Your task to perform on an android device: turn off location history Image 0: 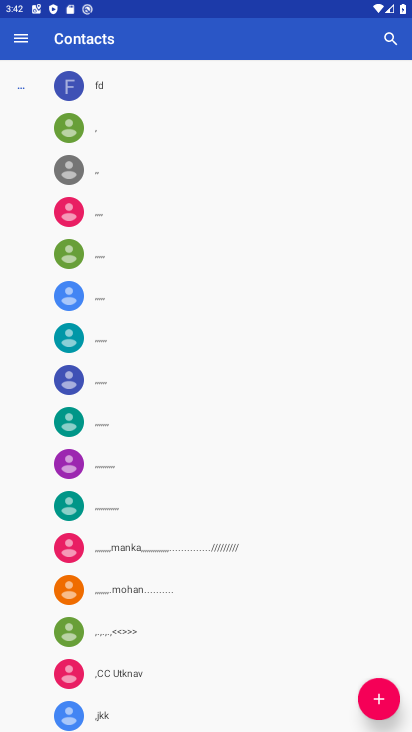
Step 0: press home button
Your task to perform on an android device: turn off location history Image 1: 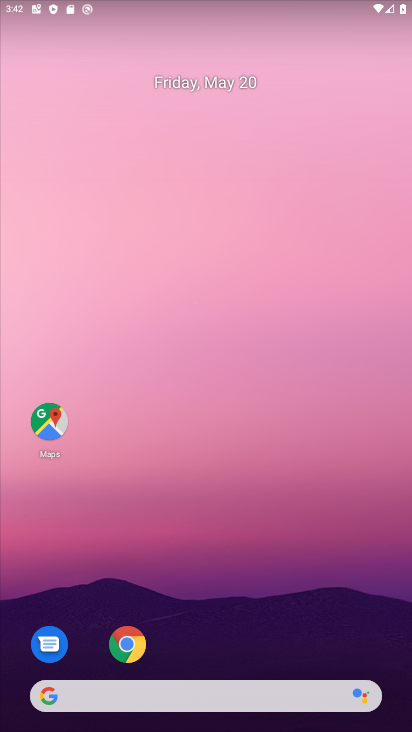
Step 1: drag from (261, 610) to (308, 196)
Your task to perform on an android device: turn off location history Image 2: 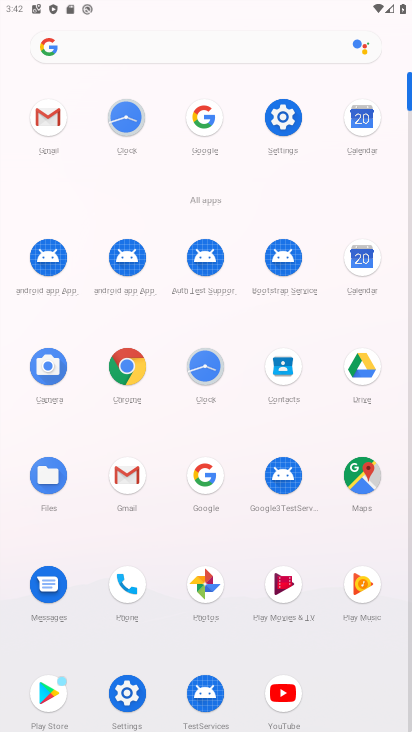
Step 2: click (287, 125)
Your task to perform on an android device: turn off location history Image 3: 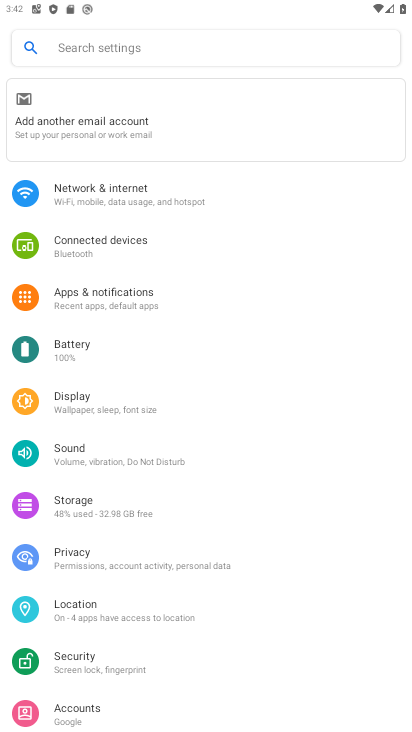
Step 3: click (127, 612)
Your task to perform on an android device: turn off location history Image 4: 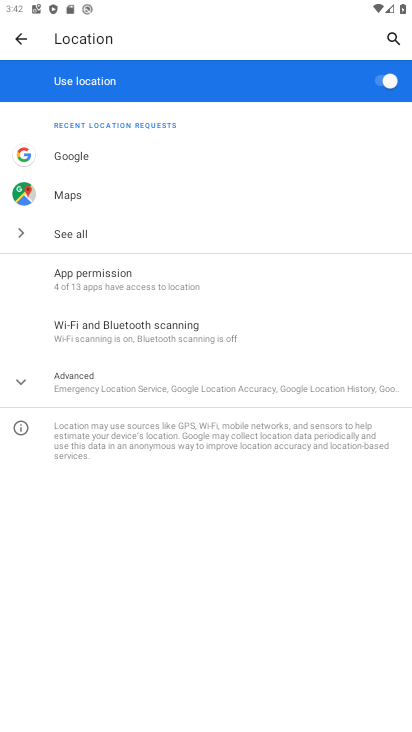
Step 4: click (75, 386)
Your task to perform on an android device: turn off location history Image 5: 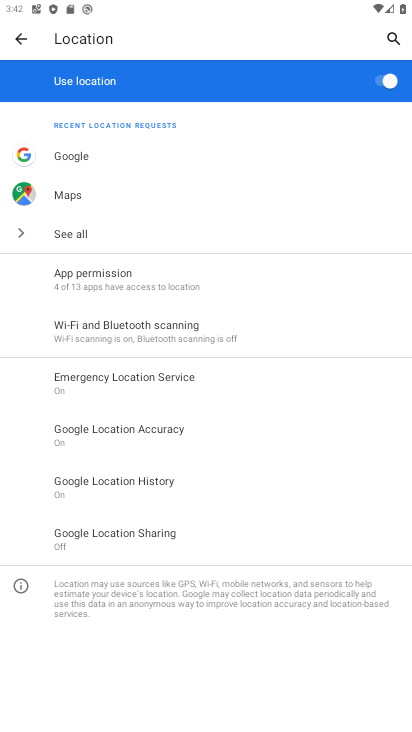
Step 5: click (141, 488)
Your task to perform on an android device: turn off location history Image 6: 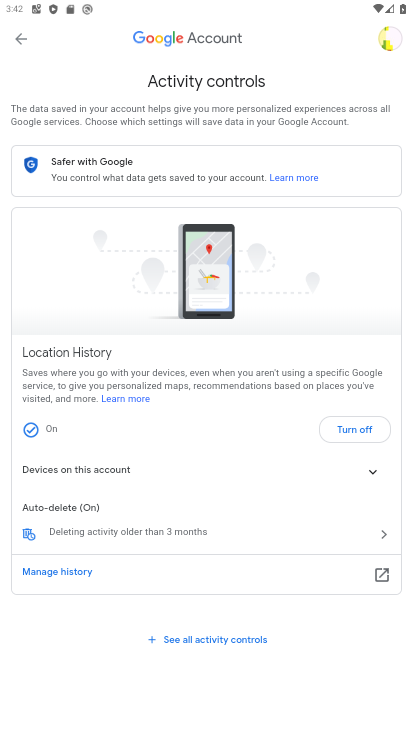
Step 6: click (373, 433)
Your task to perform on an android device: turn off location history Image 7: 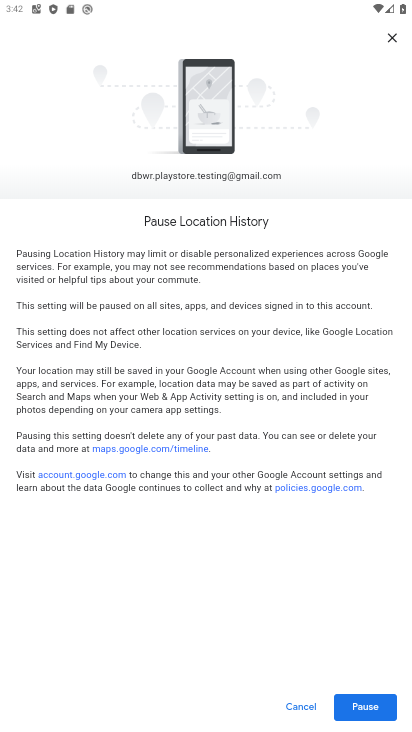
Step 7: click (371, 699)
Your task to perform on an android device: turn off location history Image 8: 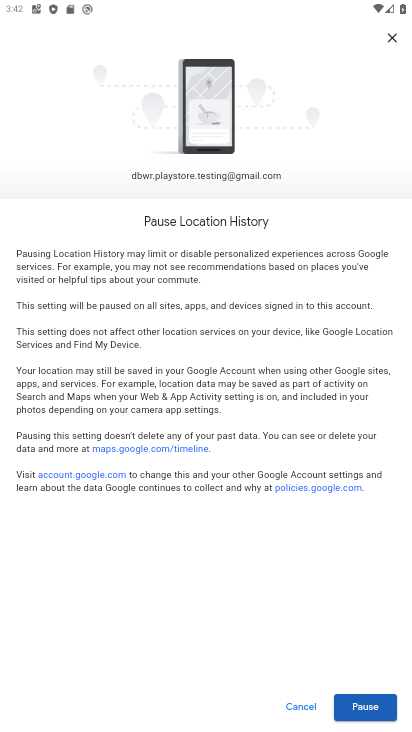
Step 8: click (350, 717)
Your task to perform on an android device: turn off location history Image 9: 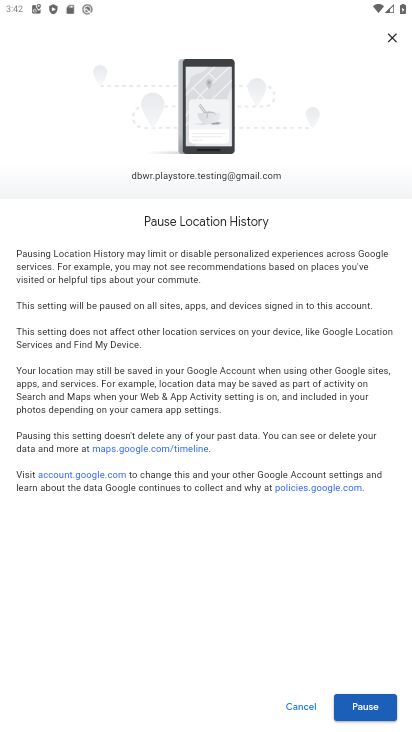
Step 9: click (374, 710)
Your task to perform on an android device: turn off location history Image 10: 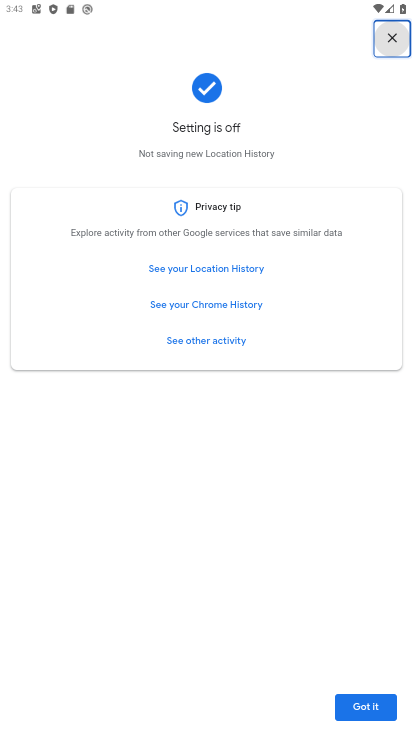
Step 10: click (373, 722)
Your task to perform on an android device: turn off location history Image 11: 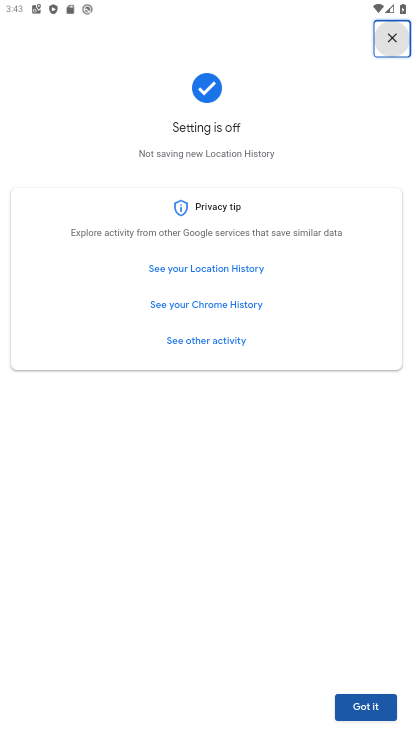
Step 11: task complete